Your task to perform on an android device: move a message to another label in the gmail app Image 0: 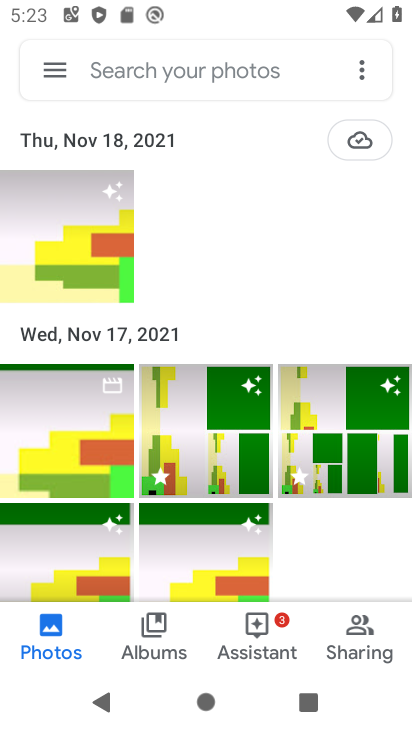
Step 0: press home button
Your task to perform on an android device: move a message to another label in the gmail app Image 1: 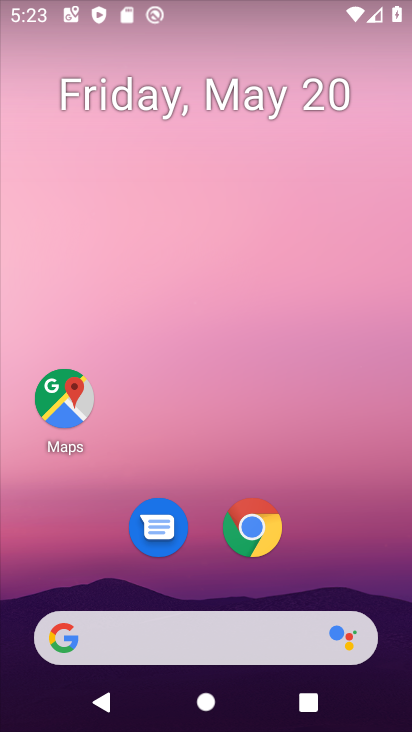
Step 1: drag from (292, 632) to (259, 122)
Your task to perform on an android device: move a message to another label in the gmail app Image 2: 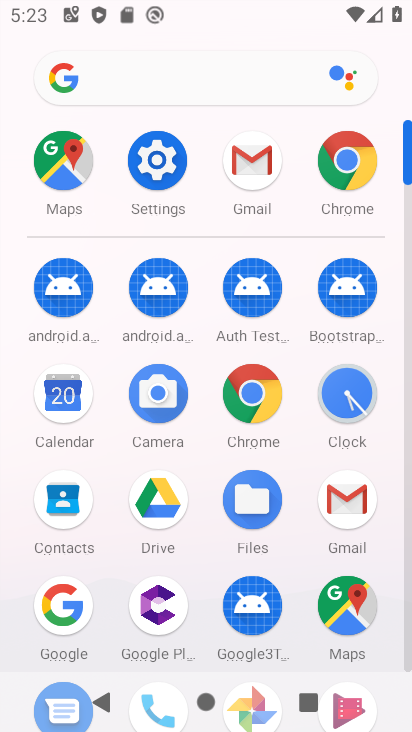
Step 2: click (345, 488)
Your task to perform on an android device: move a message to another label in the gmail app Image 3: 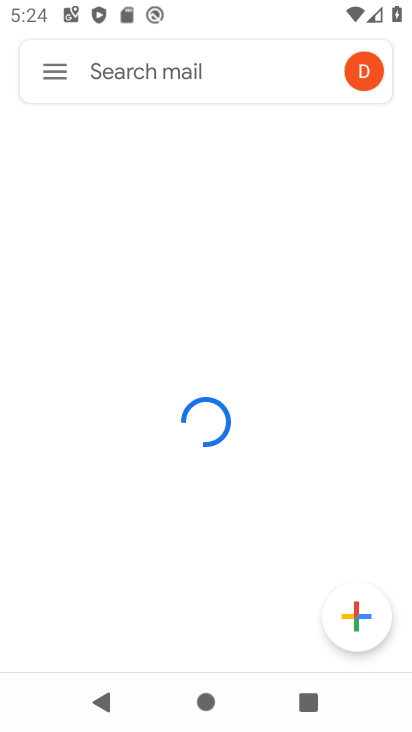
Step 3: task complete